Your task to perform on an android device: Open Google Image 0: 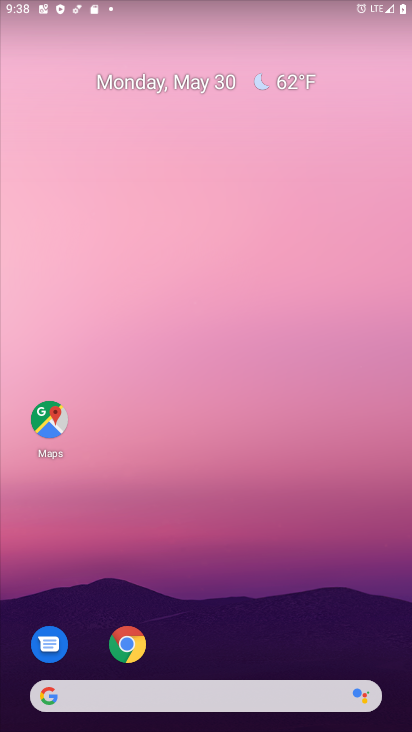
Step 0: click (128, 646)
Your task to perform on an android device: Open Google Image 1: 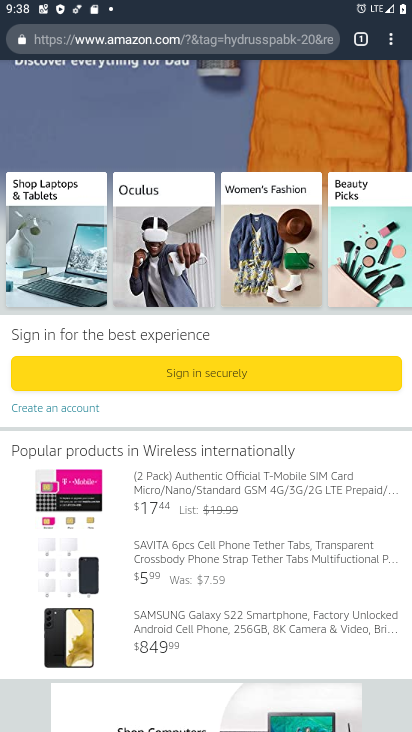
Step 1: task complete